Your task to perform on an android device: Open the map Image 0: 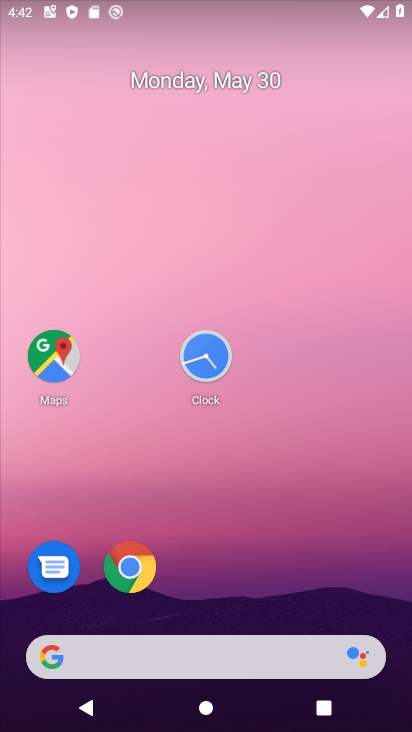
Step 0: drag from (243, 469) to (236, 94)
Your task to perform on an android device: Open the map Image 1: 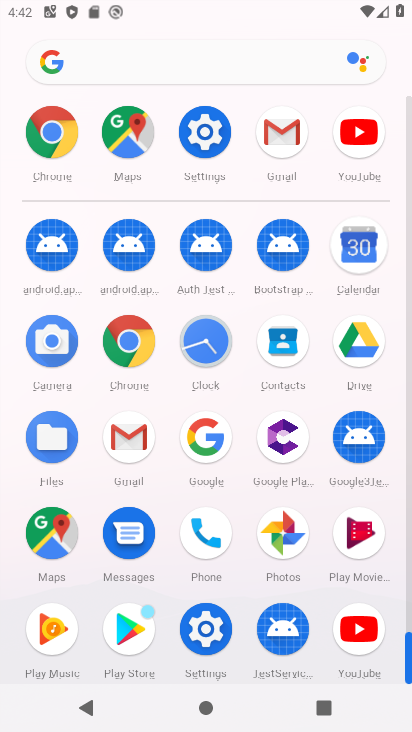
Step 1: click (56, 526)
Your task to perform on an android device: Open the map Image 2: 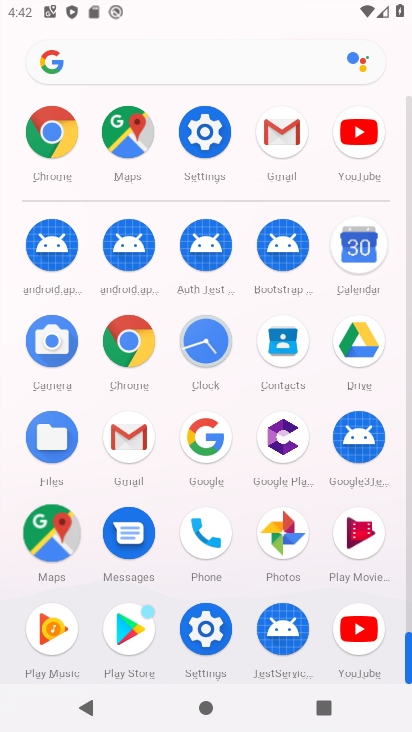
Step 2: click (49, 535)
Your task to perform on an android device: Open the map Image 3: 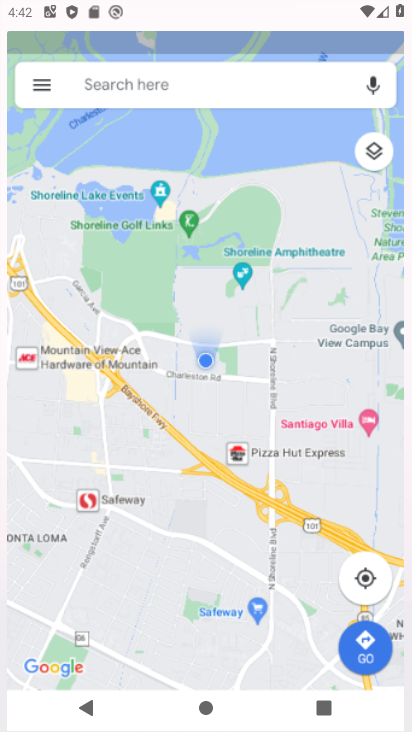
Step 3: click (49, 535)
Your task to perform on an android device: Open the map Image 4: 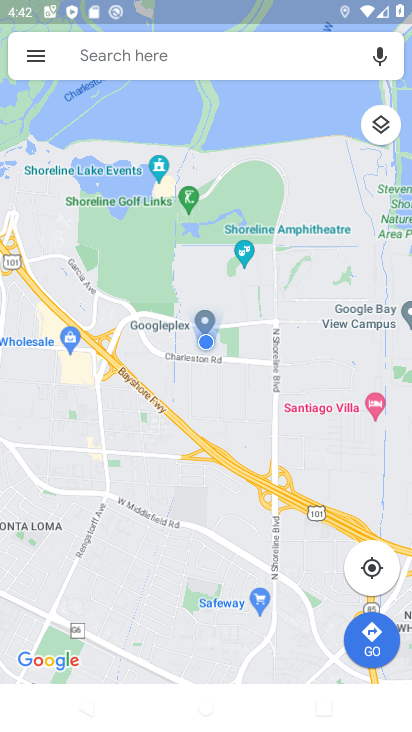
Step 4: click (94, 51)
Your task to perform on an android device: Open the map Image 5: 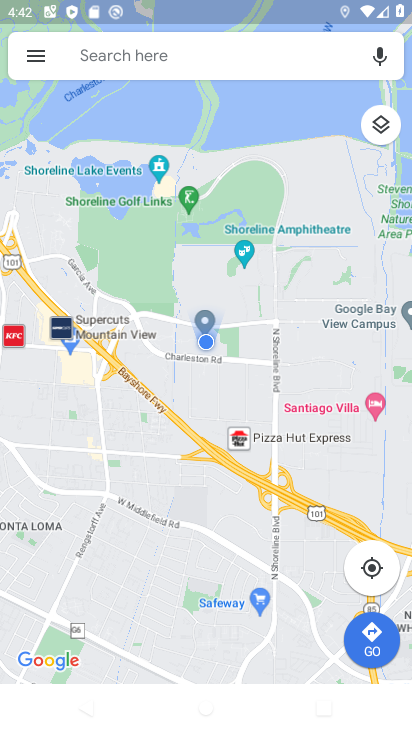
Step 5: click (94, 57)
Your task to perform on an android device: Open the map Image 6: 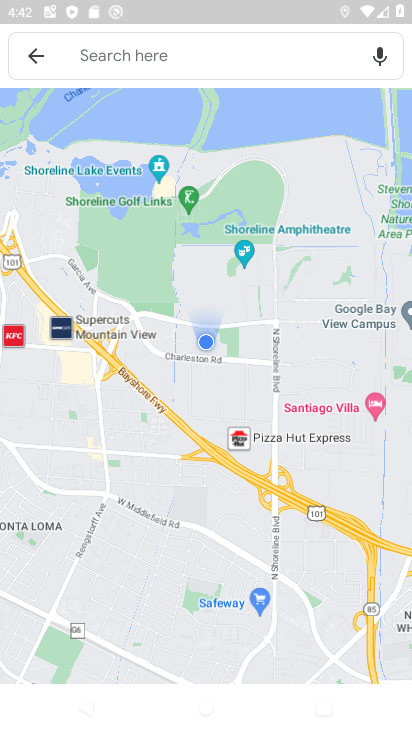
Step 6: click (95, 57)
Your task to perform on an android device: Open the map Image 7: 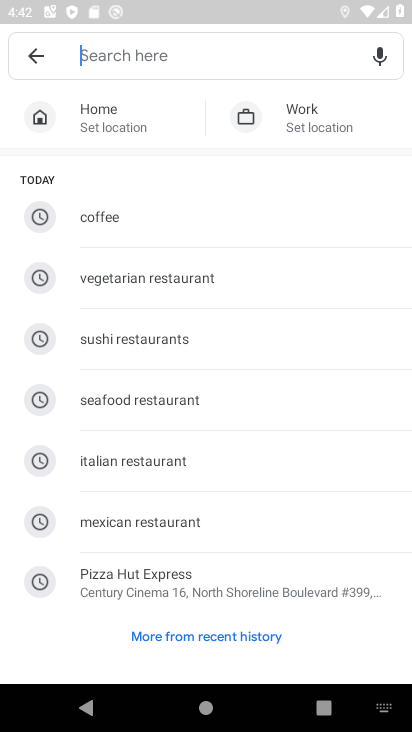
Step 7: click (97, 78)
Your task to perform on an android device: Open the map Image 8: 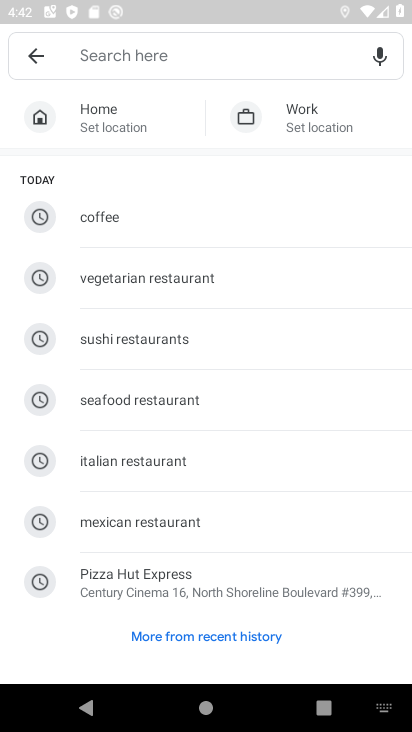
Step 8: drag from (158, 472) to (135, 265)
Your task to perform on an android device: Open the map Image 9: 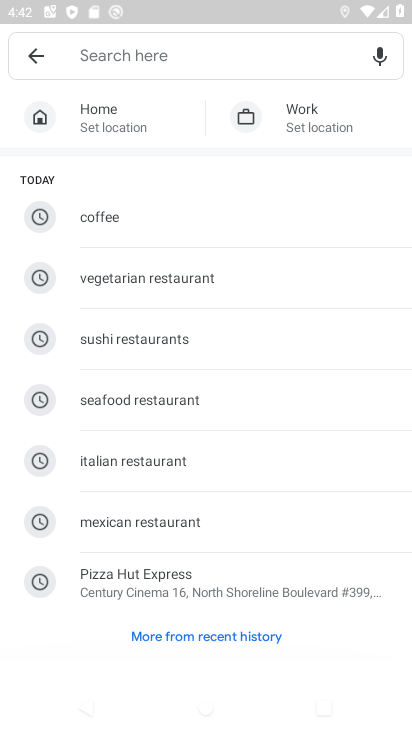
Step 9: drag from (146, 332) to (150, 164)
Your task to perform on an android device: Open the map Image 10: 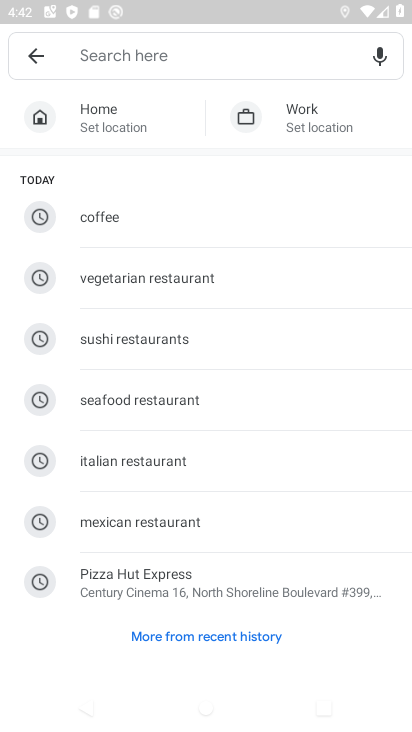
Step 10: click (93, 66)
Your task to perform on an android device: Open the map Image 11: 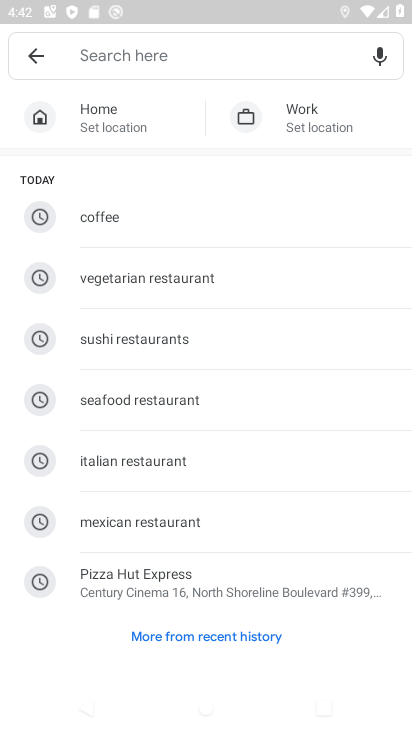
Step 11: click (94, 62)
Your task to perform on an android device: Open the map Image 12: 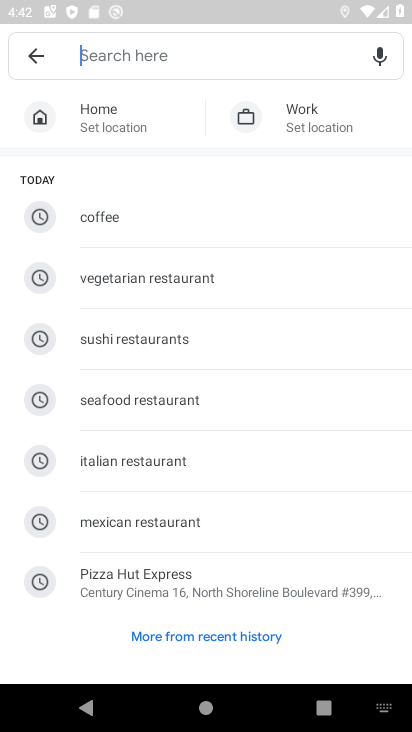
Step 12: click (94, 62)
Your task to perform on an android device: Open the map Image 13: 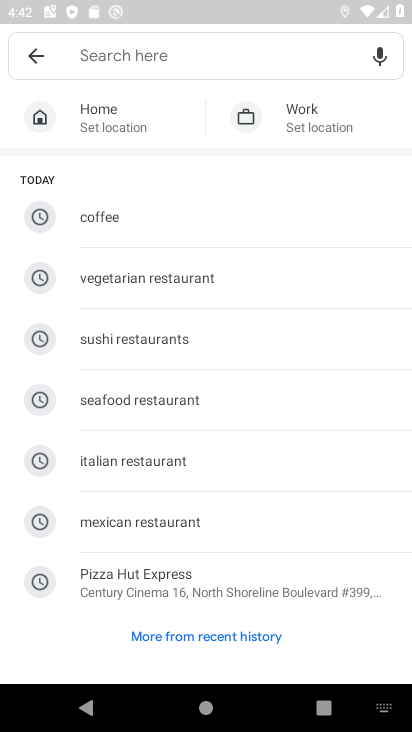
Step 13: click (94, 62)
Your task to perform on an android device: Open the map Image 14: 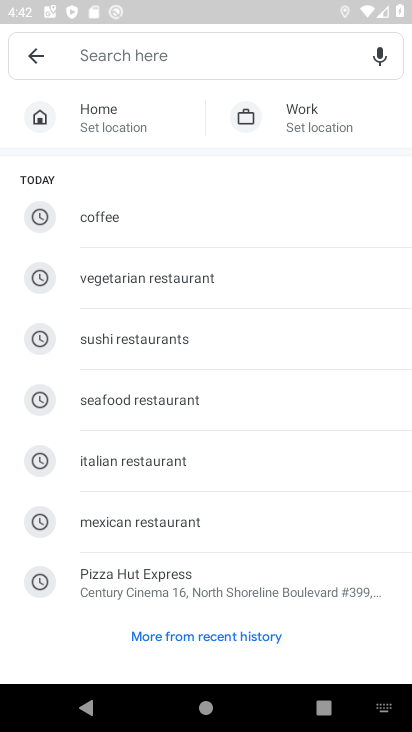
Step 14: click (94, 61)
Your task to perform on an android device: Open the map Image 15: 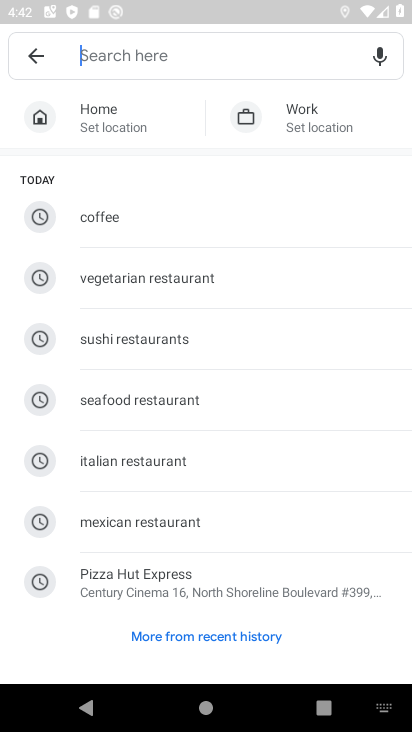
Step 15: click (94, 61)
Your task to perform on an android device: Open the map Image 16: 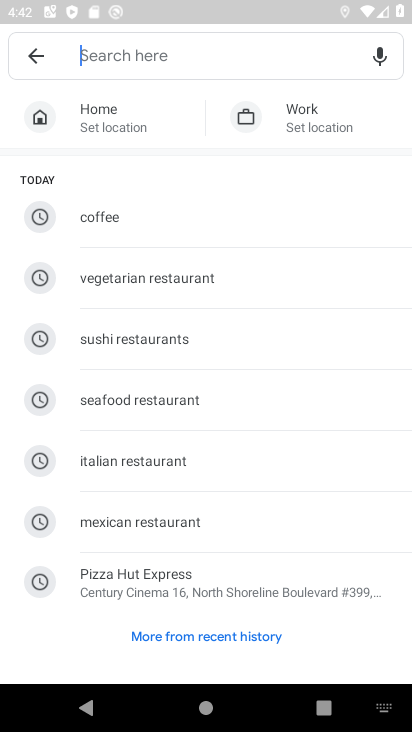
Step 16: click (94, 47)
Your task to perform on an android device: Open the map Image 17: 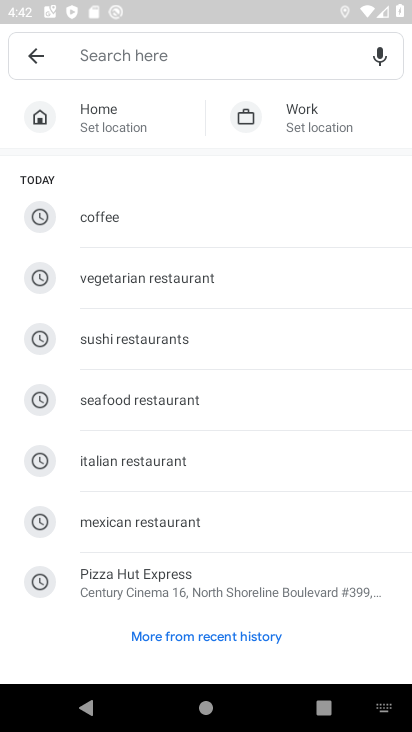
Step 17: click (94, 47)
Your task to perform on an android device: Open the map Image 18: 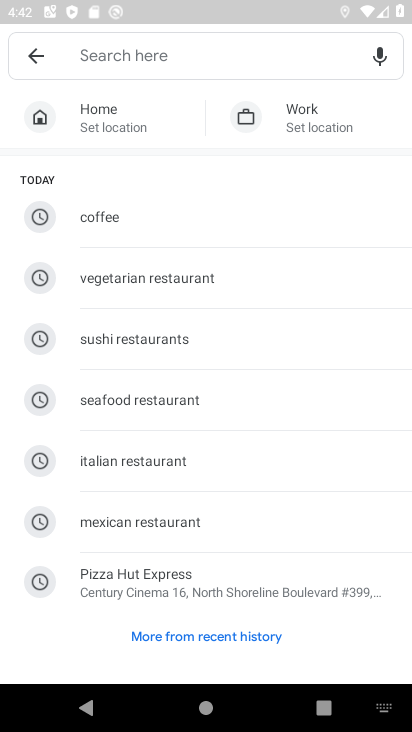
Step 18: click (94, 47)
Your task to perform on an android device: Open the map Image 19: 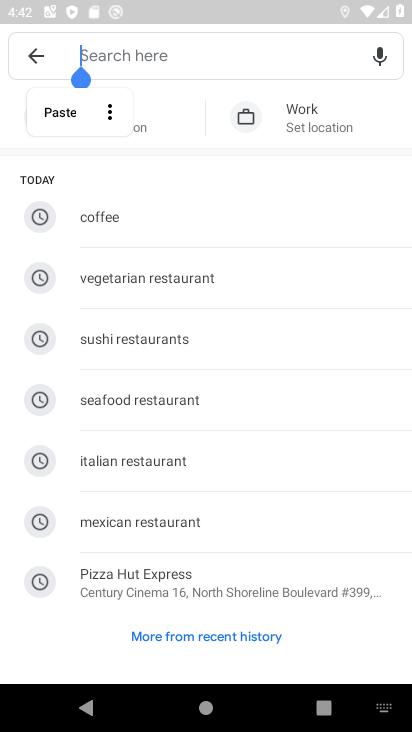
Step 19: drag from (112, 344) to (96, 63)
Your task to perform on an android device: Open the map Image 20: 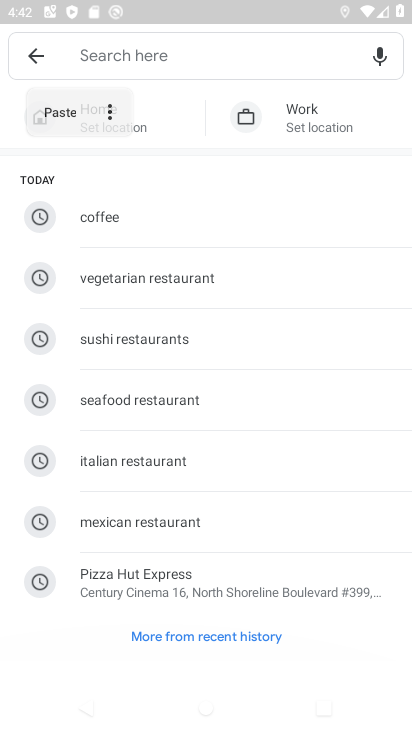
Step 20: drag from (166, 468) to (149, 188)
Your task to perform on an android device: Open the map Image 21: 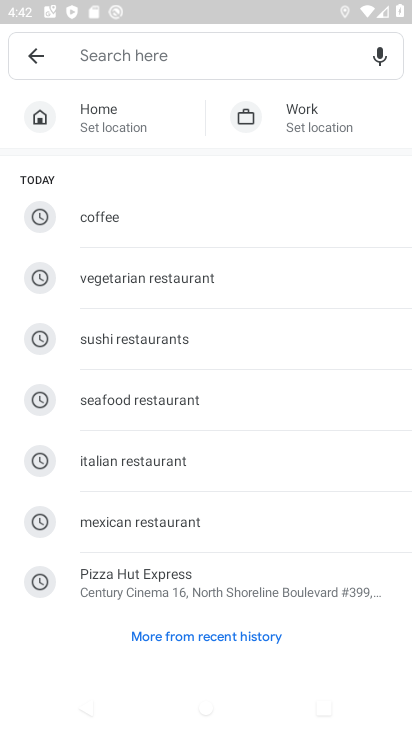
Step 21: click (42, 56)
Your task to perform on an android device: Open the map Image 22: 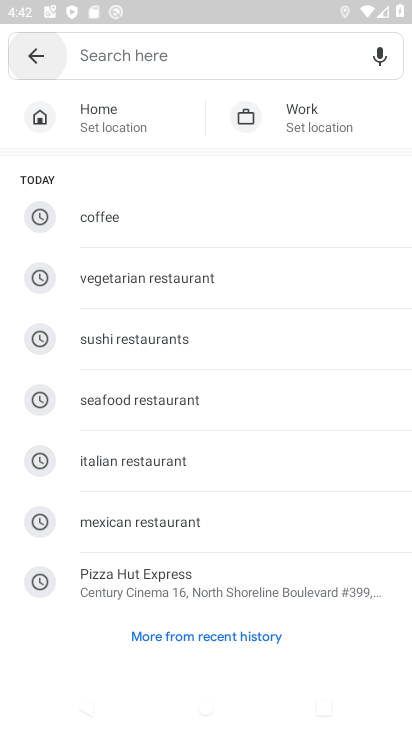
Step 22: click (41, 57)
Your task to perform on an android device: Open the map Image 23: 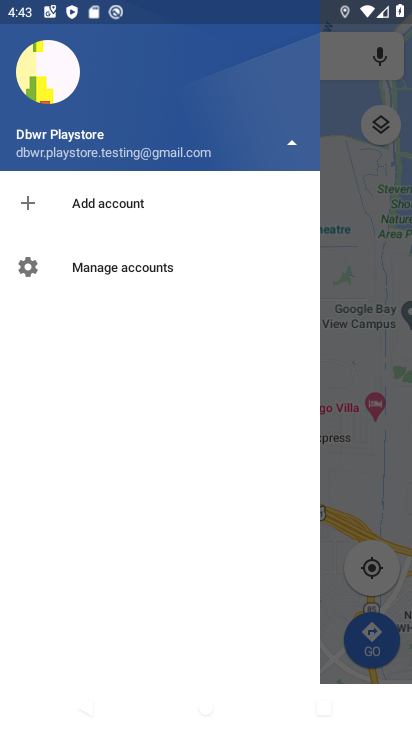
Step 23: task complete